Your task to perform on an android device: Search for a nice rug on Crate & Barrel Image 0: 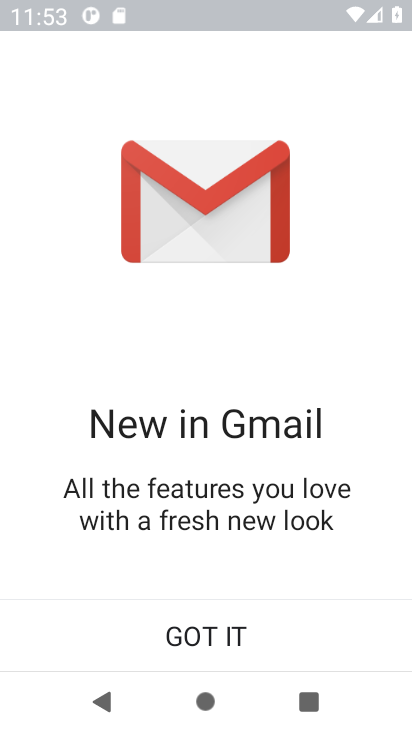
Step 0: press home button
Your task to perform on an android device: Search for a nice rug on Crate & Barrel Image 1: 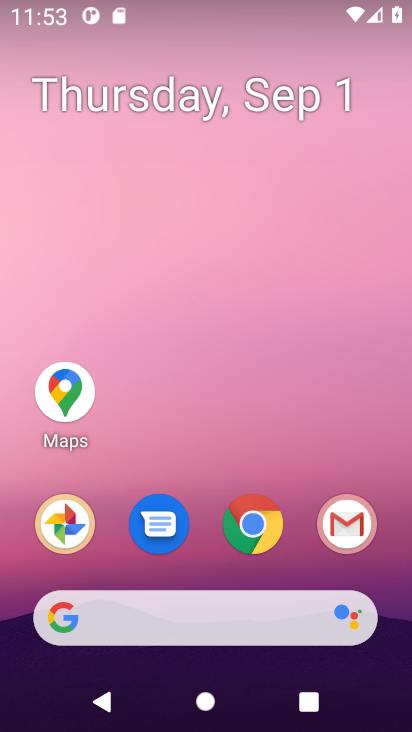
Step 1: drag from (391, 580) to (382, 67)
Your task to perform on an android device: Search for a nice rug on Crate & Barrel Image 2: 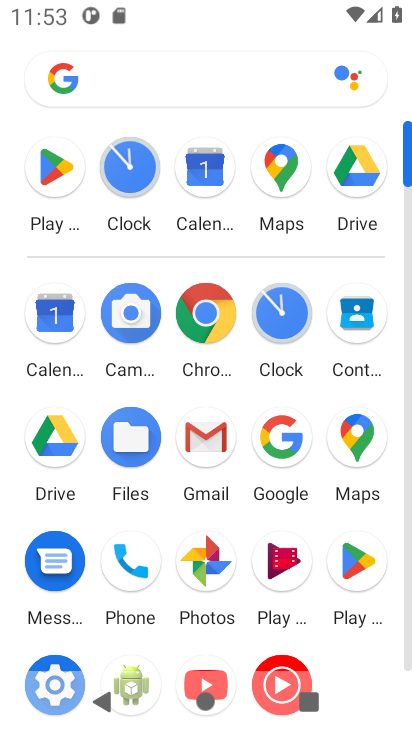
Step 2: click (214, 320)
Your task to perform on an android device: Search for a nice rug on Crate & Barrel Image 3: 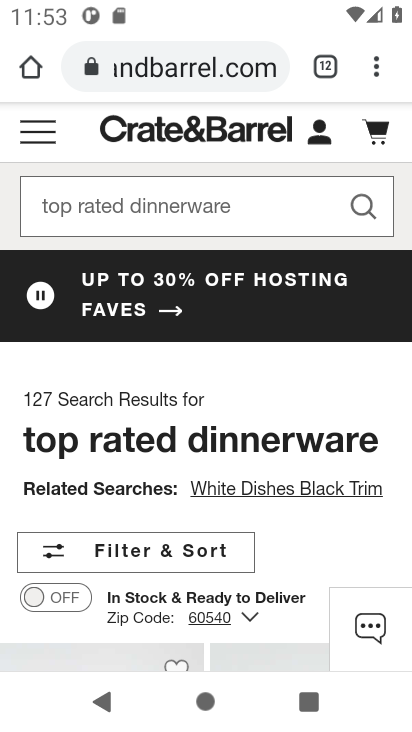
Step 3: click (257, 73)
Your task to perform on an android device: Search for a nice rug on Crate & Barrel Image 4: 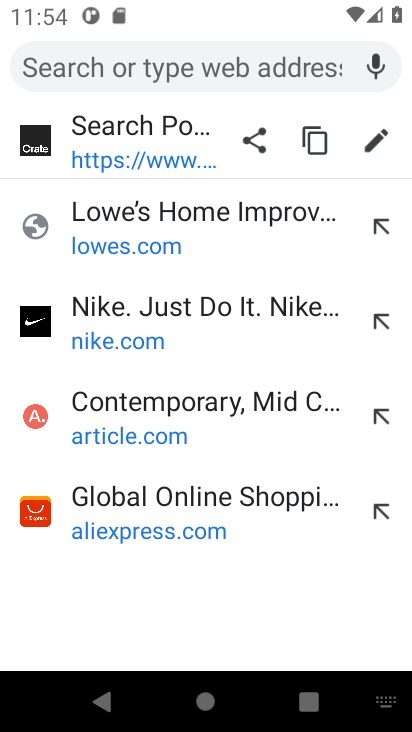
Step 4: press enter
Your task to perform on an android device: Search for a nice rug on Crate & Barrel Image 5: 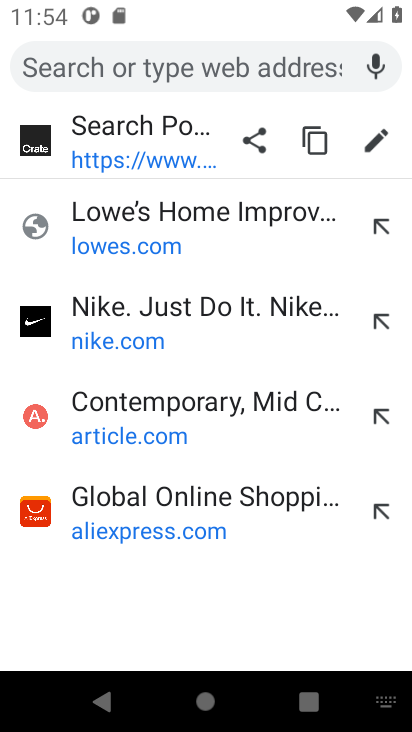
Step 5: type "crate barrel"
Your task to perform on an android device: Search for a nice rug on Crate & Barrel Image 6: 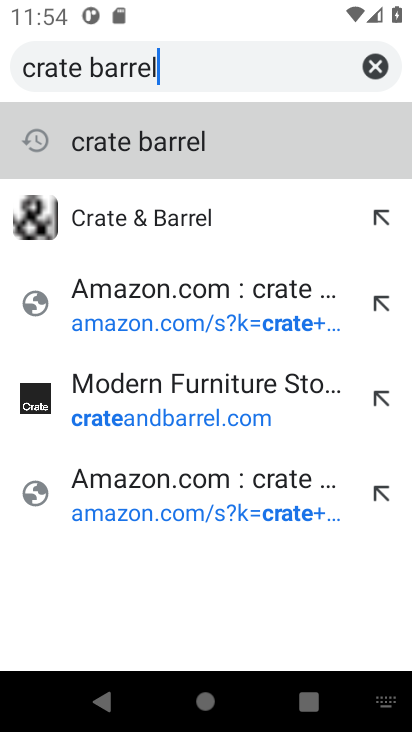
Step 6: click (198, 144)
Your task to perform on an android device: Search for a nice rug on Crate & Barrel Image 7: 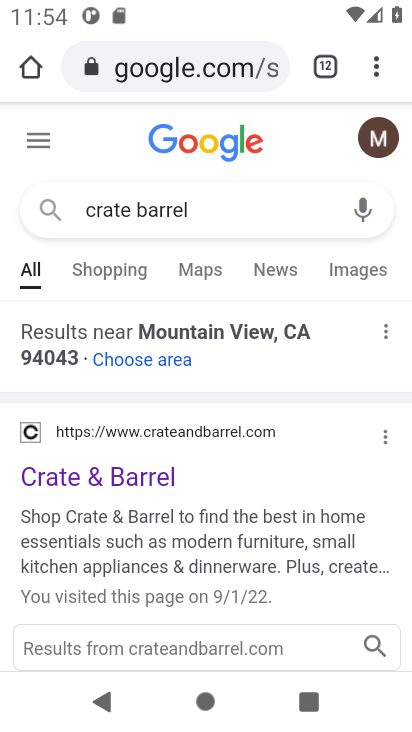
Step 7: click (134, 480)
Your task to perform on an android device: Search for a nice rug on Crate & Barrel Image 8: 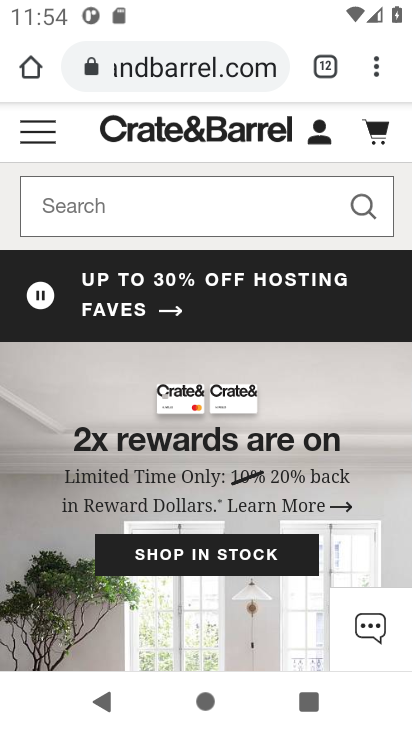
Step 8: click (201, 202)
Your task to perform on an android device: Search for a nice rug on Crate & Barrel Image 9: 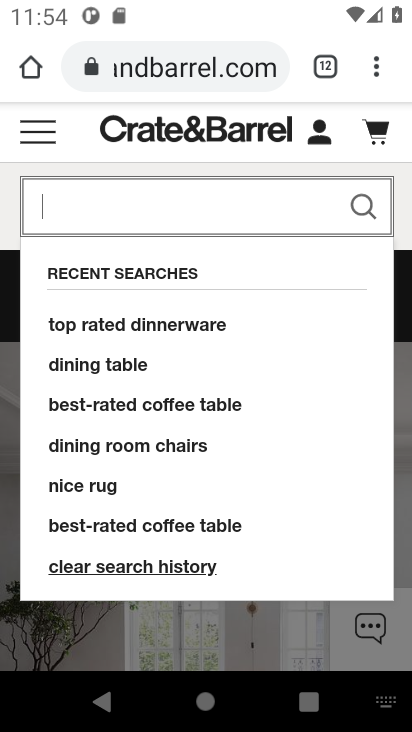
Step 9: click (115, 482)
Your task to perform on an android device: Search for a nice rug on Crate & Barrel Image 10: 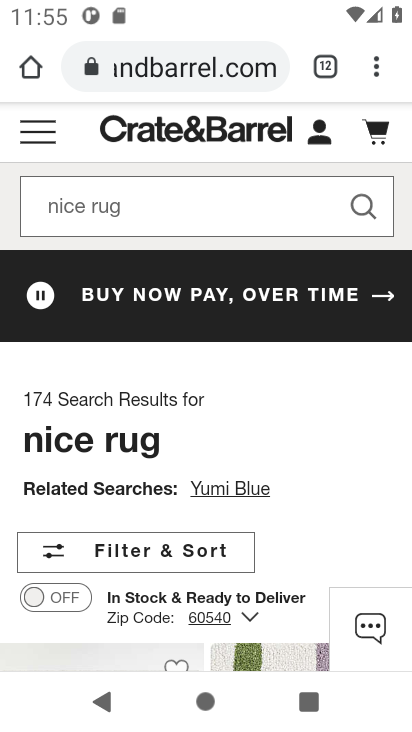
Step 10: task complete